Your task to perform on an android device: Search for Italian restaurants on Maps Image 0: 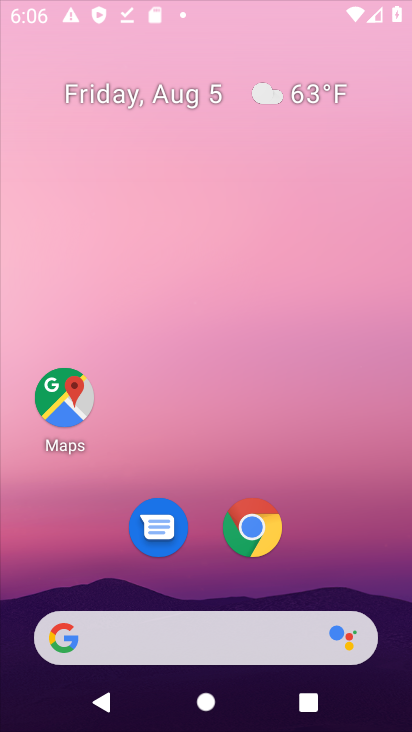
Step 0: click (301, 135)
Your task to perform on an android device: Search for Italian restaurants on Maps Image 1: 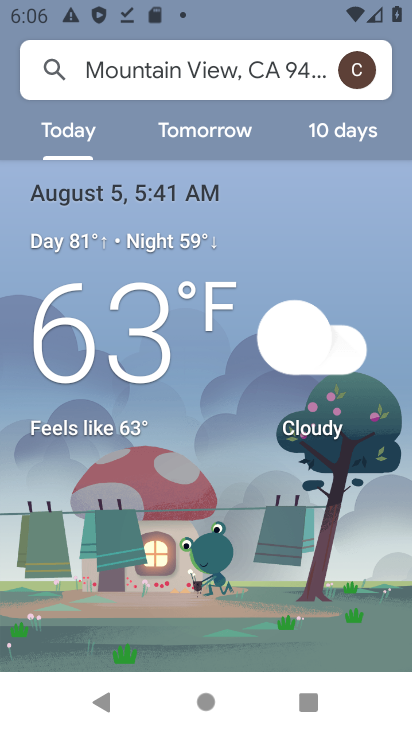
Step 1: drag from (203, 519) to (206, 321)
Your task to perform on an android device: Search for Italian restaurants on Maps Image 2: 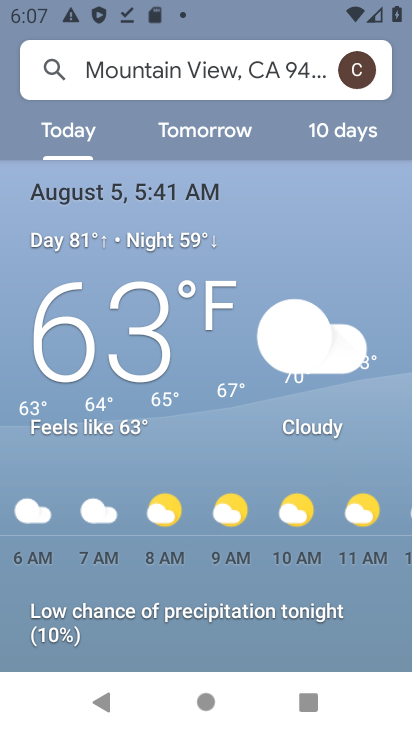
Step 2: click (218, 70)
Your task to perform on an android device: Search for Italian restaurants on Maps Image 3: 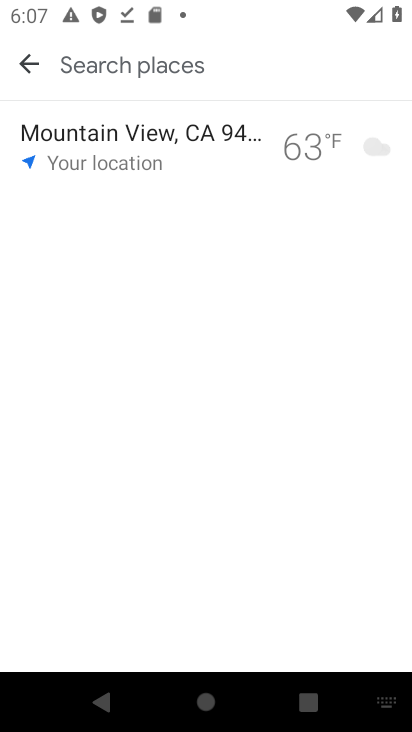
Step 3: click (25, 72)
Your task to perform on an android device: Search for Italian restaurants on Maps Image 4: 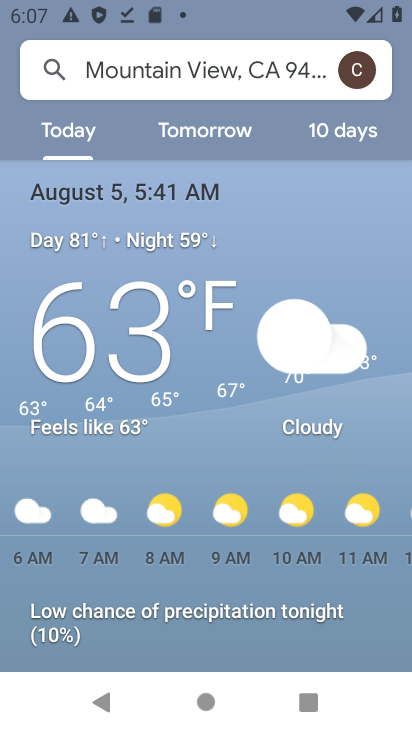
Step 4: press home button
Your task to perform on an android device: Search for Italian restaurants on Maps Image 5: 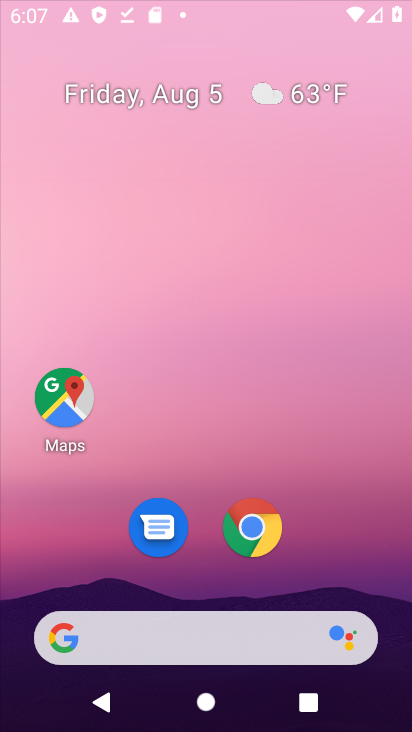
Step 5: drag from (152, 570) to (288, 31)
Your task to perform on an android device: Search for Italian restaurants on Maps Image 6: 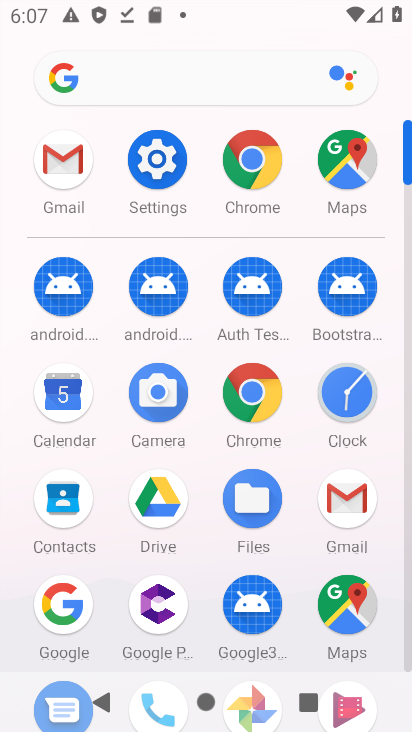
Step 6: click (349, 147)
Your task to perform on an android device: Search for Italian restaurants on Maps Image 7: 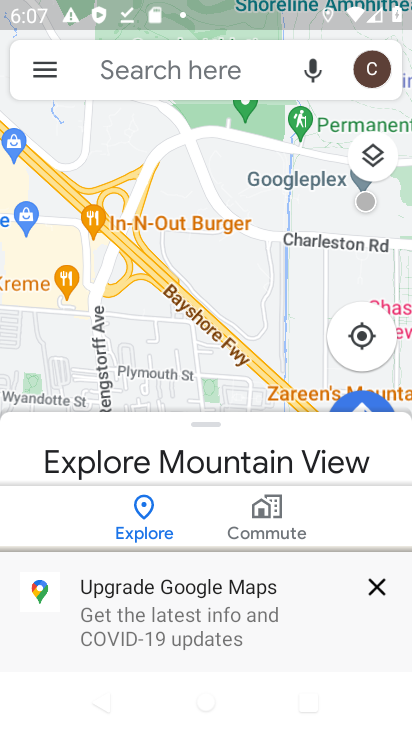
Step 7: click (179, 54)
Your task to perform on an android device: Search for Italian restaurants on Maps Image 8: 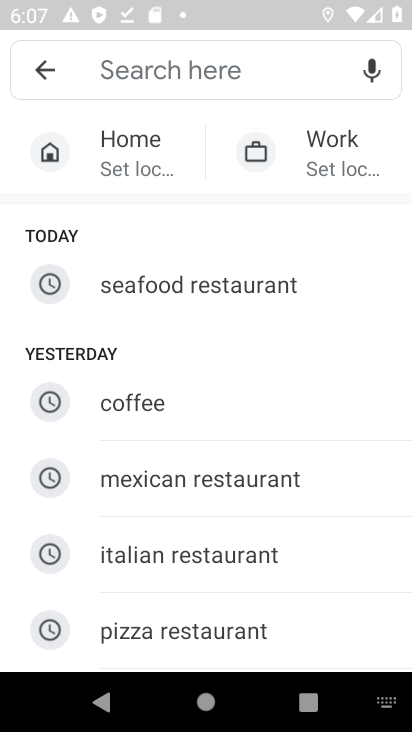
Step 8: click (146, 553)
Your task to perform on an android device: Search for Italian restaurants on Maps Image 9: 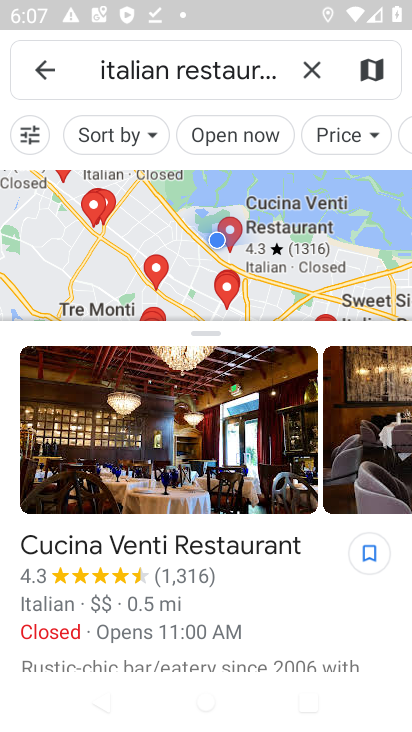
Step 9: task complete